Your task to perform on an android device: check battery use Image 0: 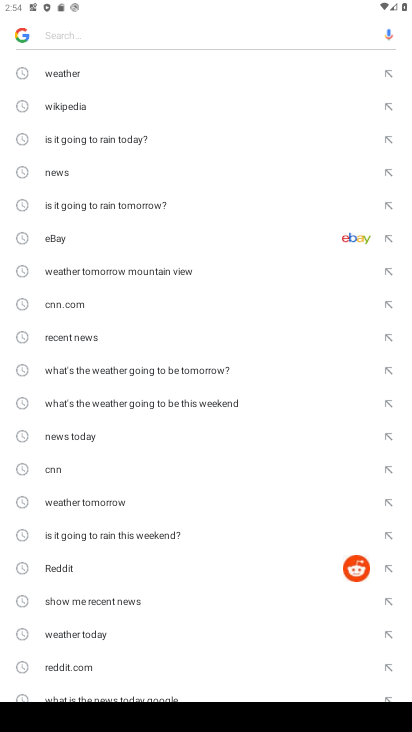
Step 0: drag from (184, 563) to (263, 45)
Your task to perform on an android device: check battery use Image 1: 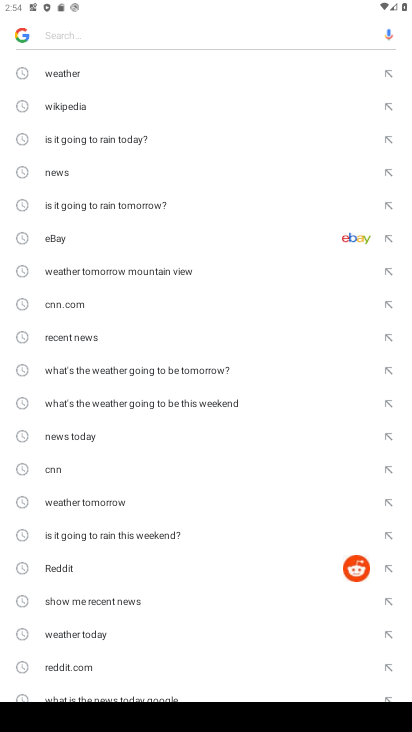
Step 1: press home button
Your task to perform on an android device: check battery use Image 2: 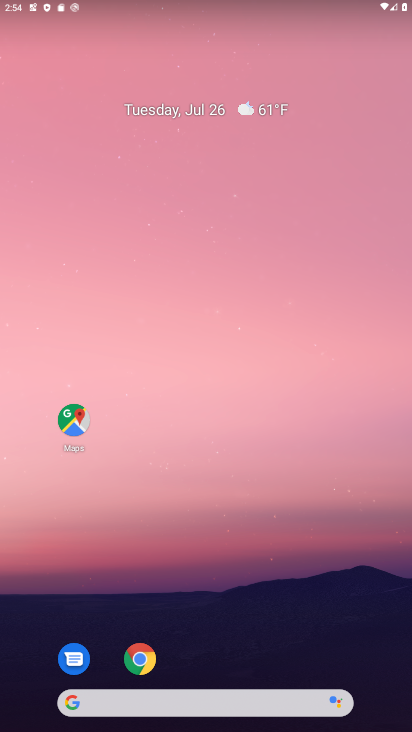
Step 2: click (278, 103)
Your task to perform on an android device: check battery use Image 3: 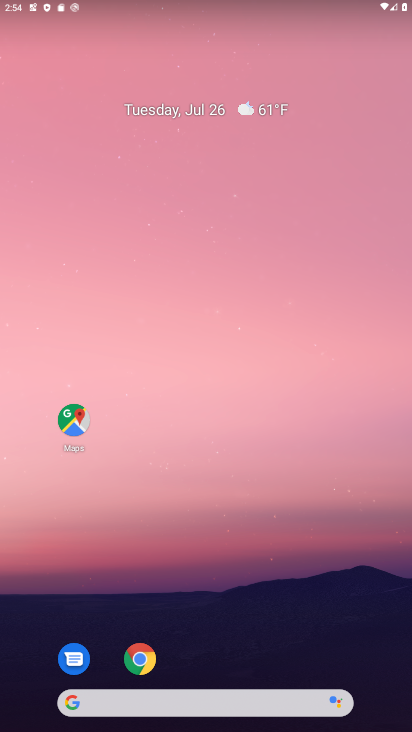
Step 3: drag from (207, 492) to (200, 117)
Your task to perform on an android device: check battery use Image 4: 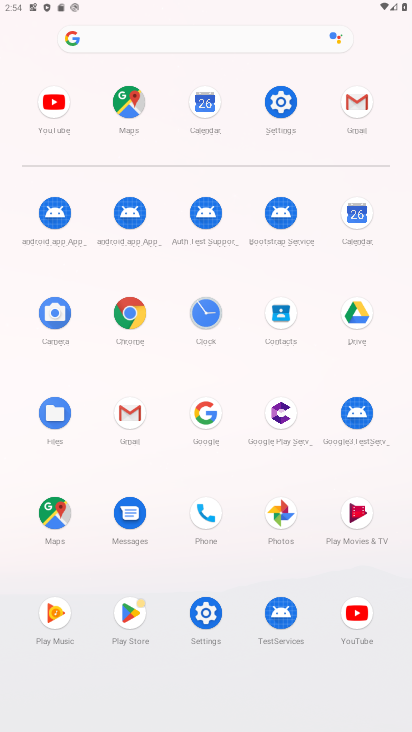
Step 4: click (70, 315)
Your task to perform on an android device: check battery use Image 5: 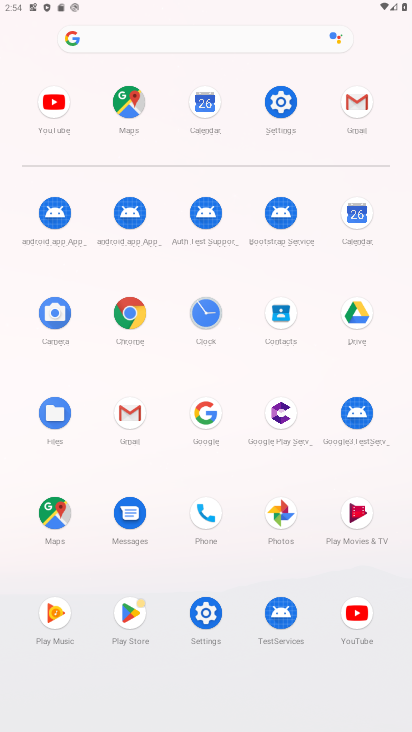
Step 5: click (279, 95)
Your task to perform on an android device: check battery use Image 6: 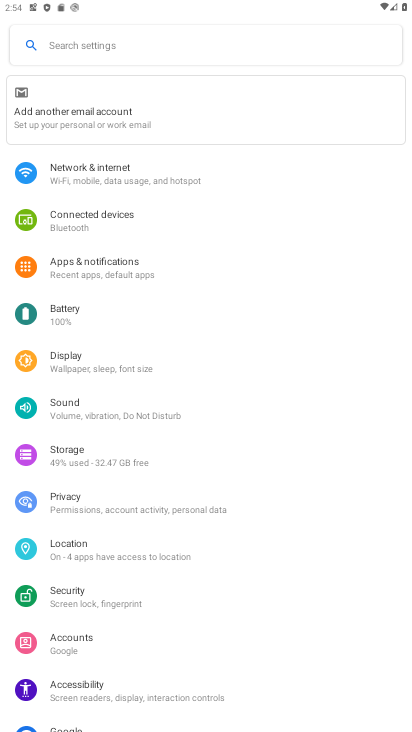
Step 6: task complete
Your task to perform on an android device: check battery use Image 7: 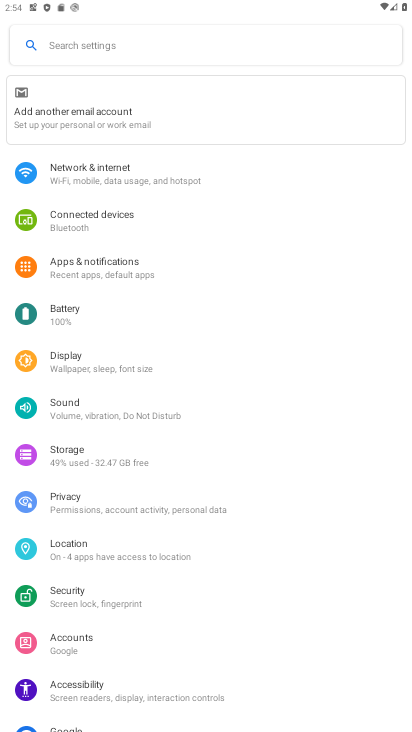
Step 7: click (86, 319)
Your task to perform on an android device: check battery use Image 8: 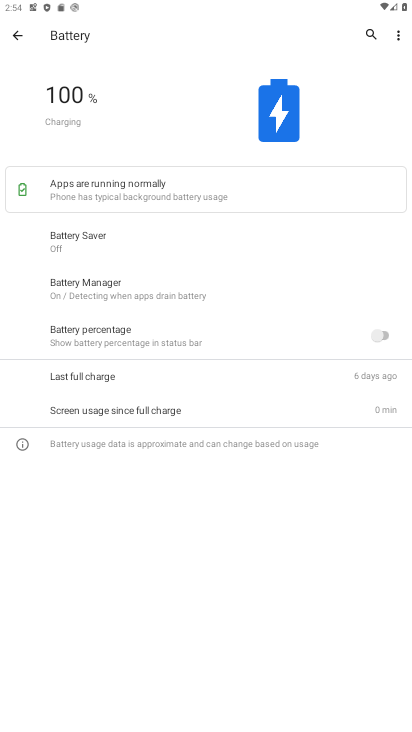
Step 8: task complete